Your task to perform on an android device: check the backup settings in the google photos Image 0: 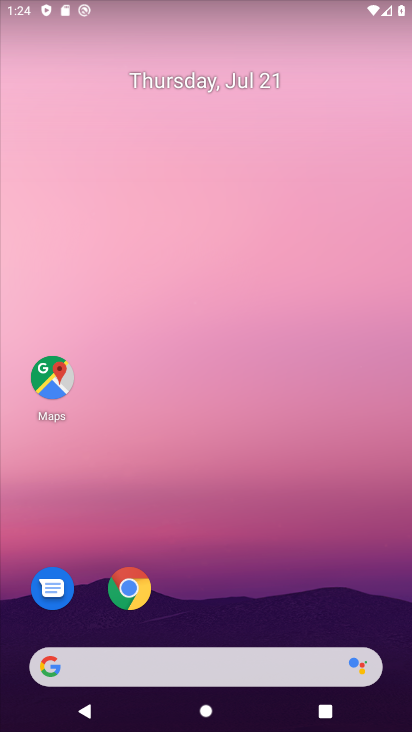
Step 0: drag from (242, 637) to (217, 49)
Your task to perform on an android device: check the backup settings in the google photos Image 1: 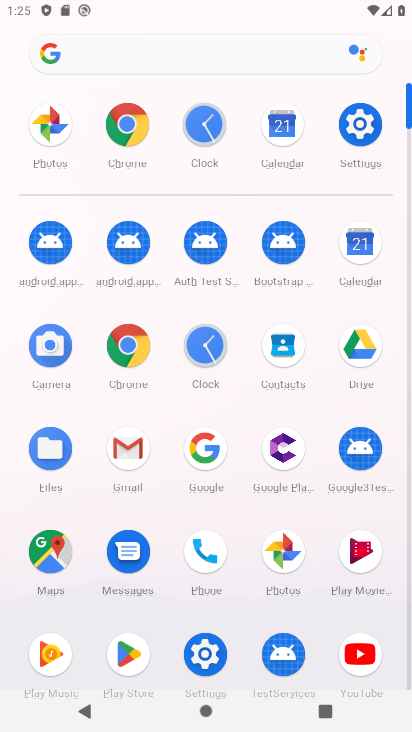
Step 1: click (273, 543)
Your task to perform on an android device: check the backup settings in the google photos Image 2: 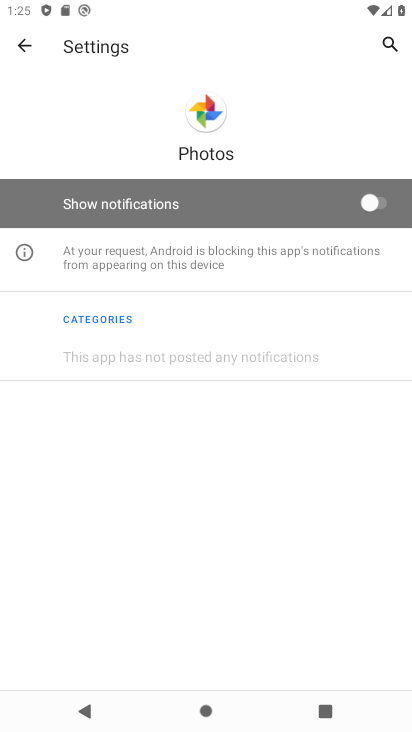
Step 2: click (29, 43)
Your task to perform on an android device: check the backup settings in the google photos Image 3: 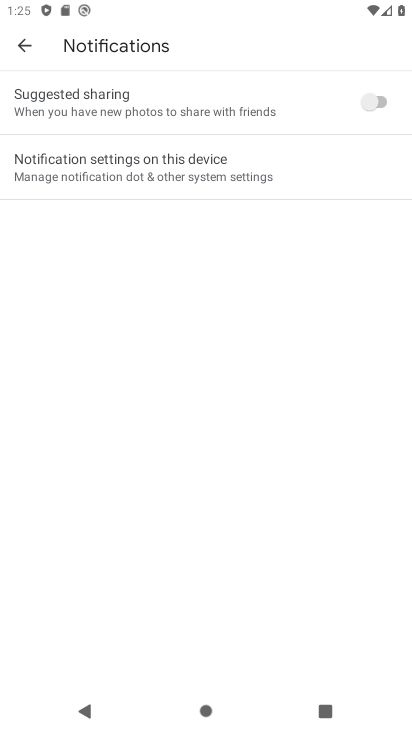
Step 3: click (23, 33)
Your task to perform on an android device: check the backup settings in the google photos Image 4: 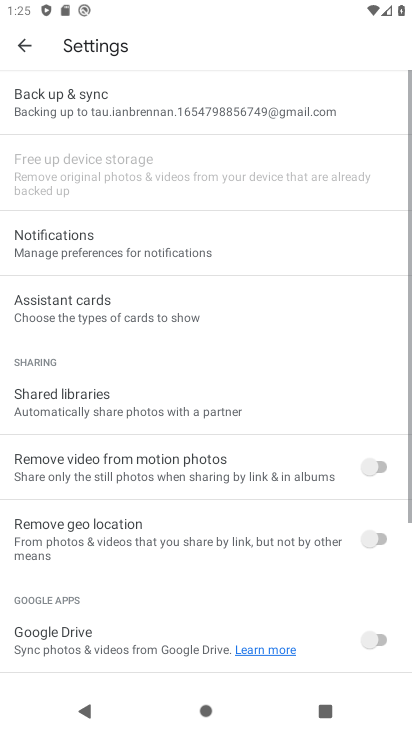
Step 4: click (51, 92)
Your task to perform on an android device: check the backup settings in the google photos Image 5: 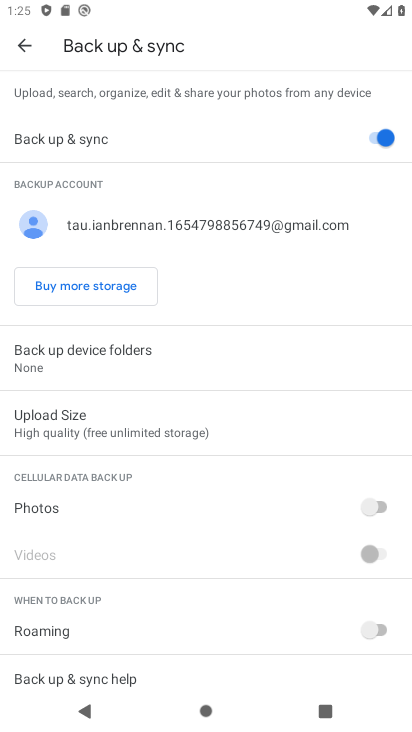
Step 5: task complete